Your task to perform on an android device: open a bookmark in the chrome app Image 0: 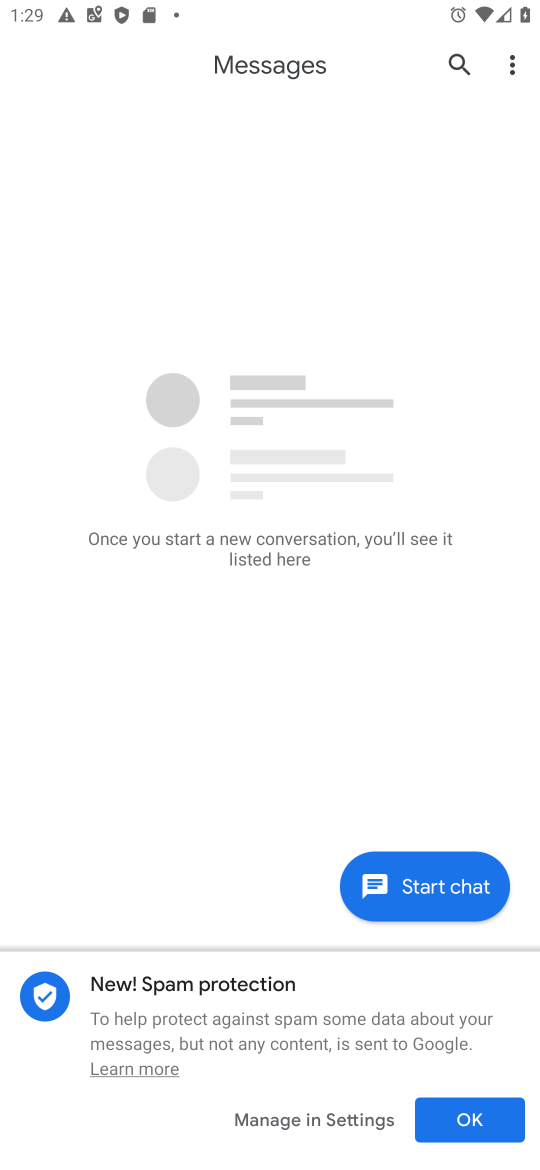
Step 0: press home button
Your task to perform on an android device: open a bookmark in the chrome app Image 1: 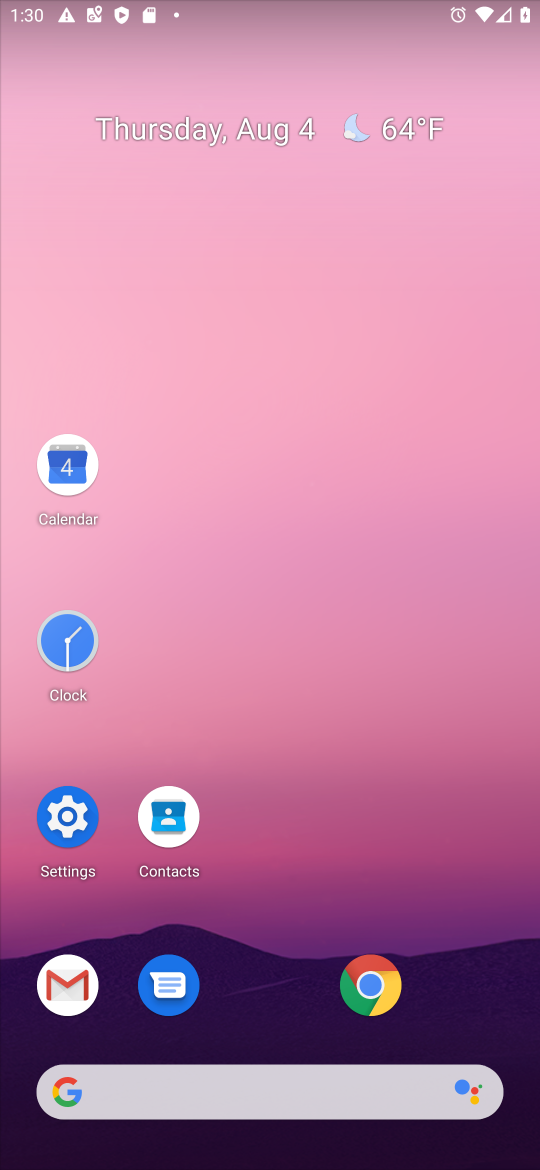
Step 1: click (369, 982)
Your task to perform on an android device: open a bookmark in the chrome app Image 2: 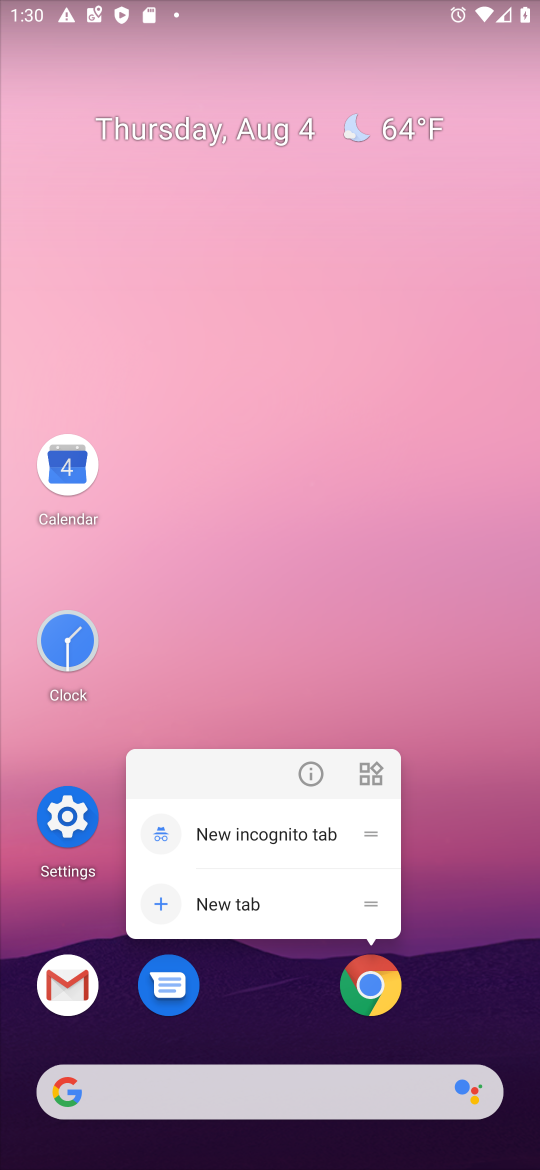
Step 2: click (369, 982)
Your task to perform on an android device: open a bookmark in the chrome app Image 3: 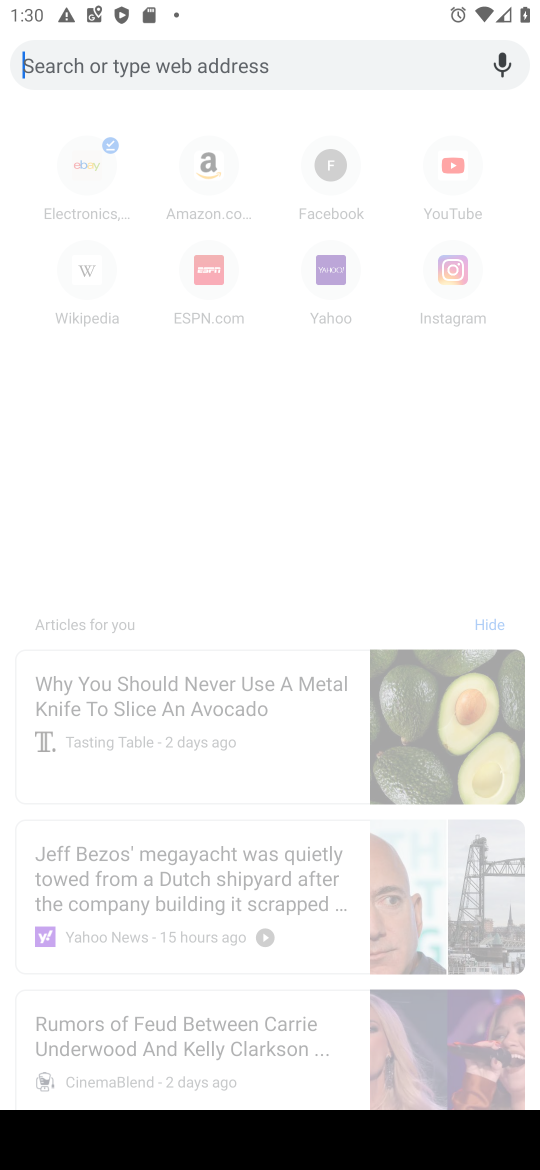
Step 3: click (284, 67)
Your task to perform on an android device: open a bookmark in the chrome app Image 4: 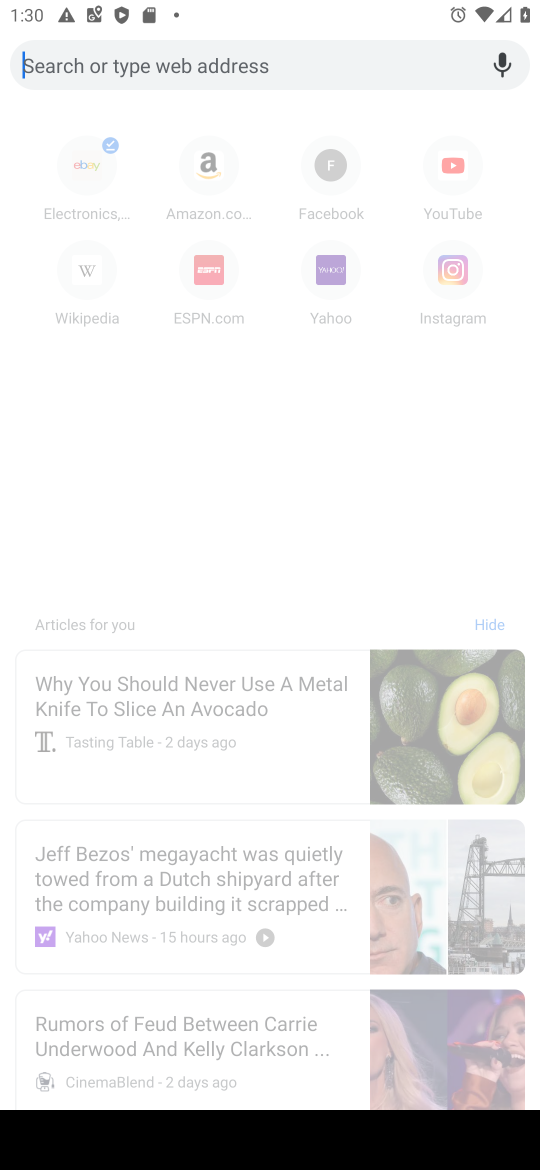
Step 4: click (284, 819)
Your task to perform on an android device: open a bookmark in the chrome app Image 5: 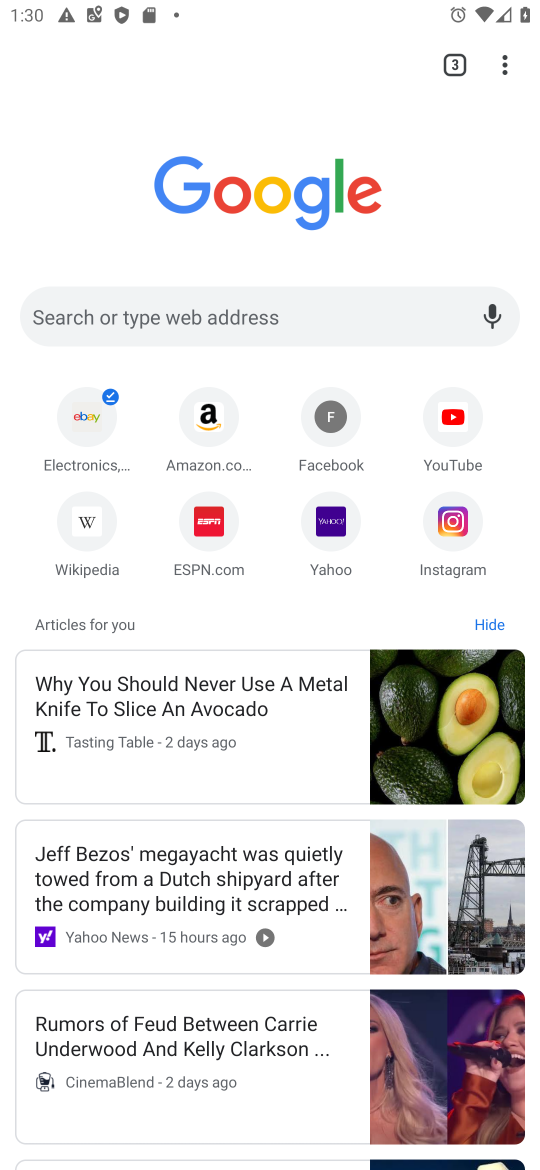
Step 5: click (235, 466)
Your task to perform on an android device: open a bookmark in the chrome app Image 6: 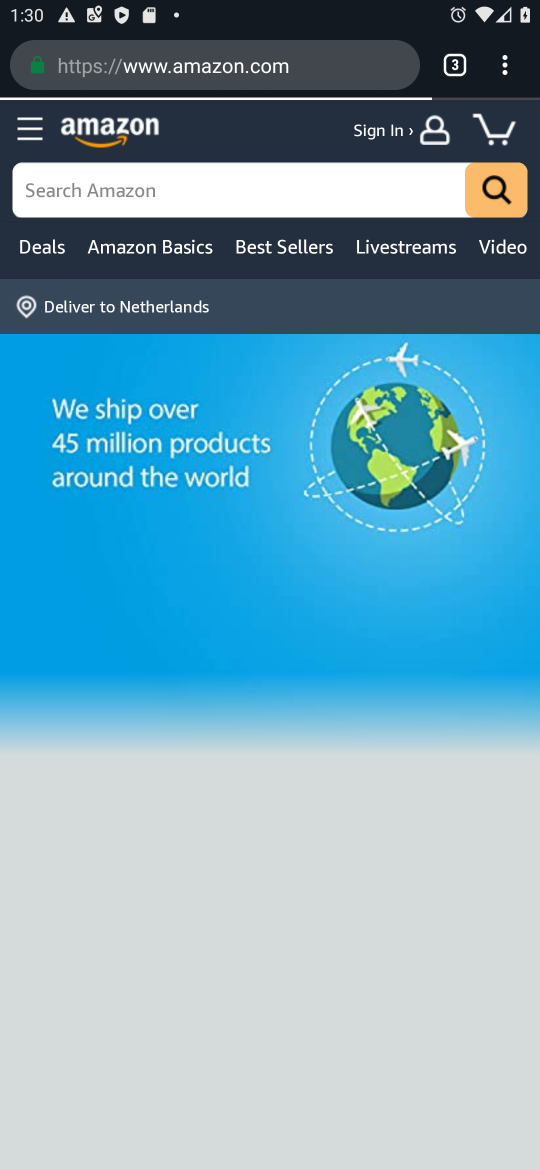
Step 6: click (501, 60)
Your task to perform on an android device: open a bookmark in the chrome app Image 7: 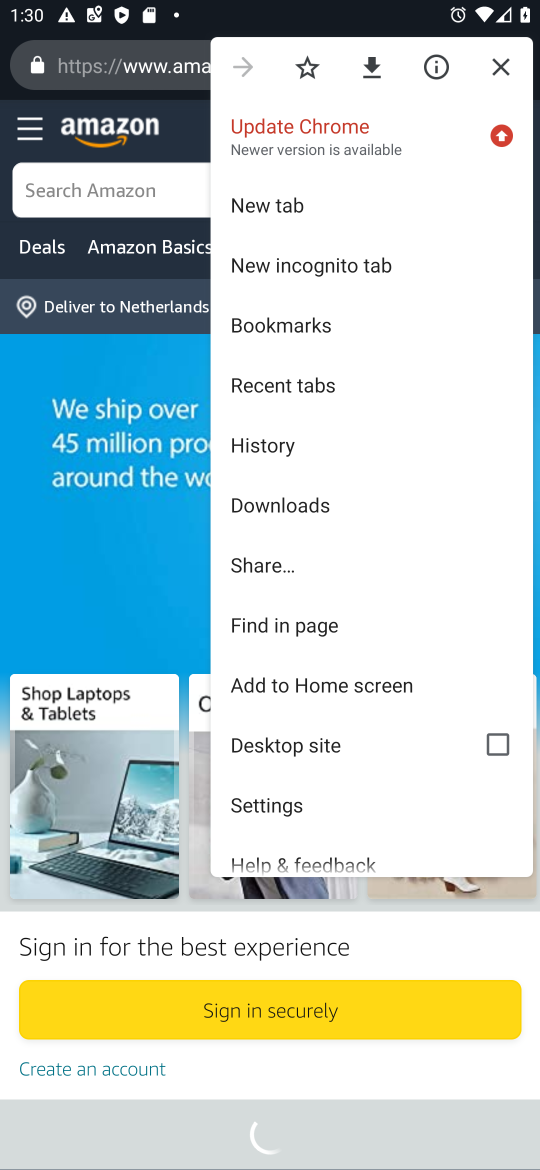
Step 7: click (296, 324)
Your task to perform on an android device: open a bookmark in the chrome app Image 8: 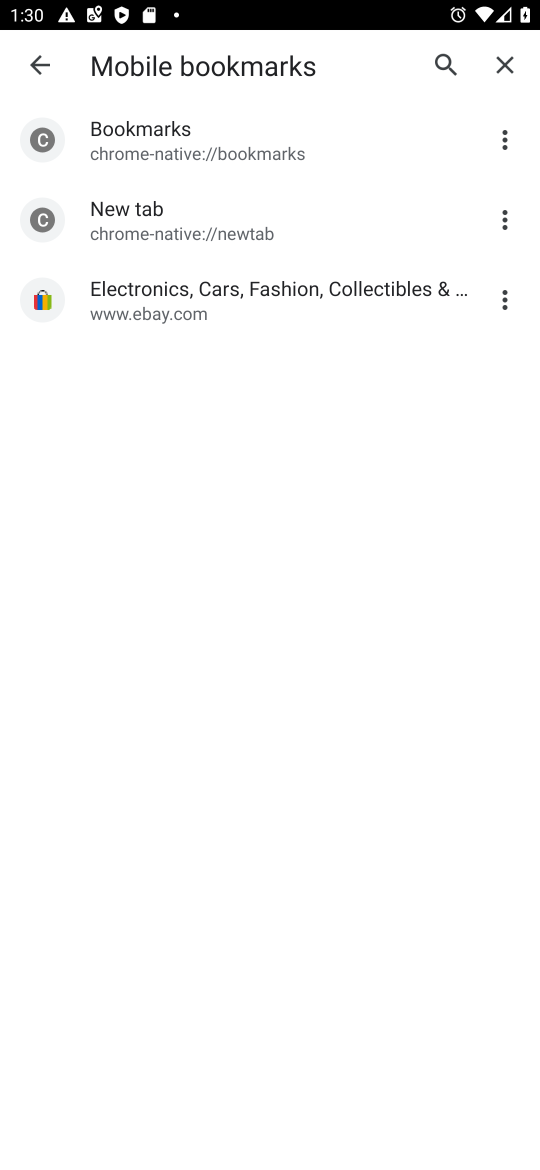
Step 8: task complete